Your task to perform on an android device: Open Wikipedia Image 0: 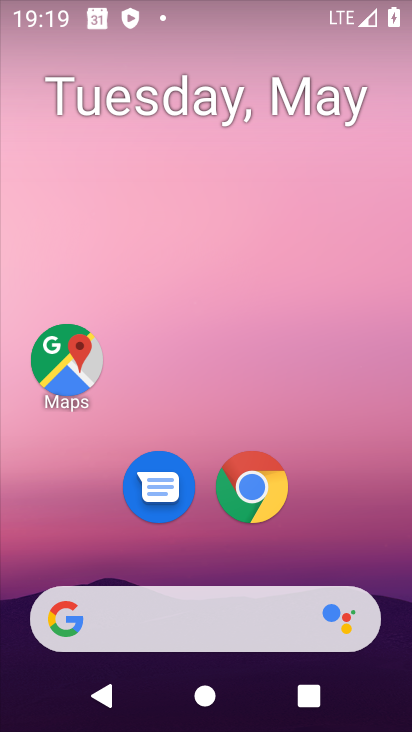
Step 0: click (261, 484)
Your task to perform on an android device: Open Wikipedia Image 1: 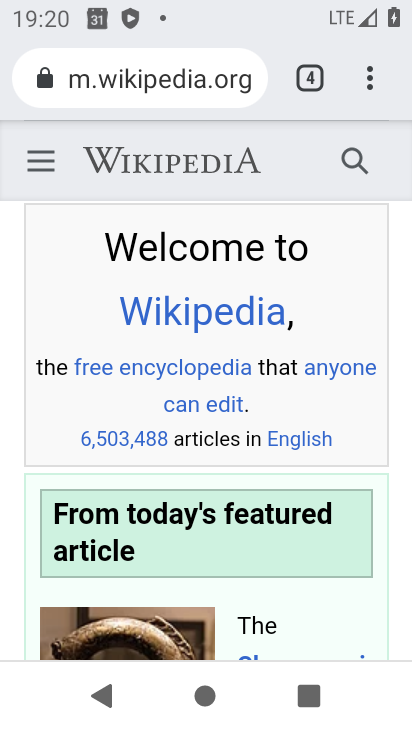
Step 1: task complete